Your task to perform on an android device: Search for flights from Buenos aires to Tokyo Image 0: 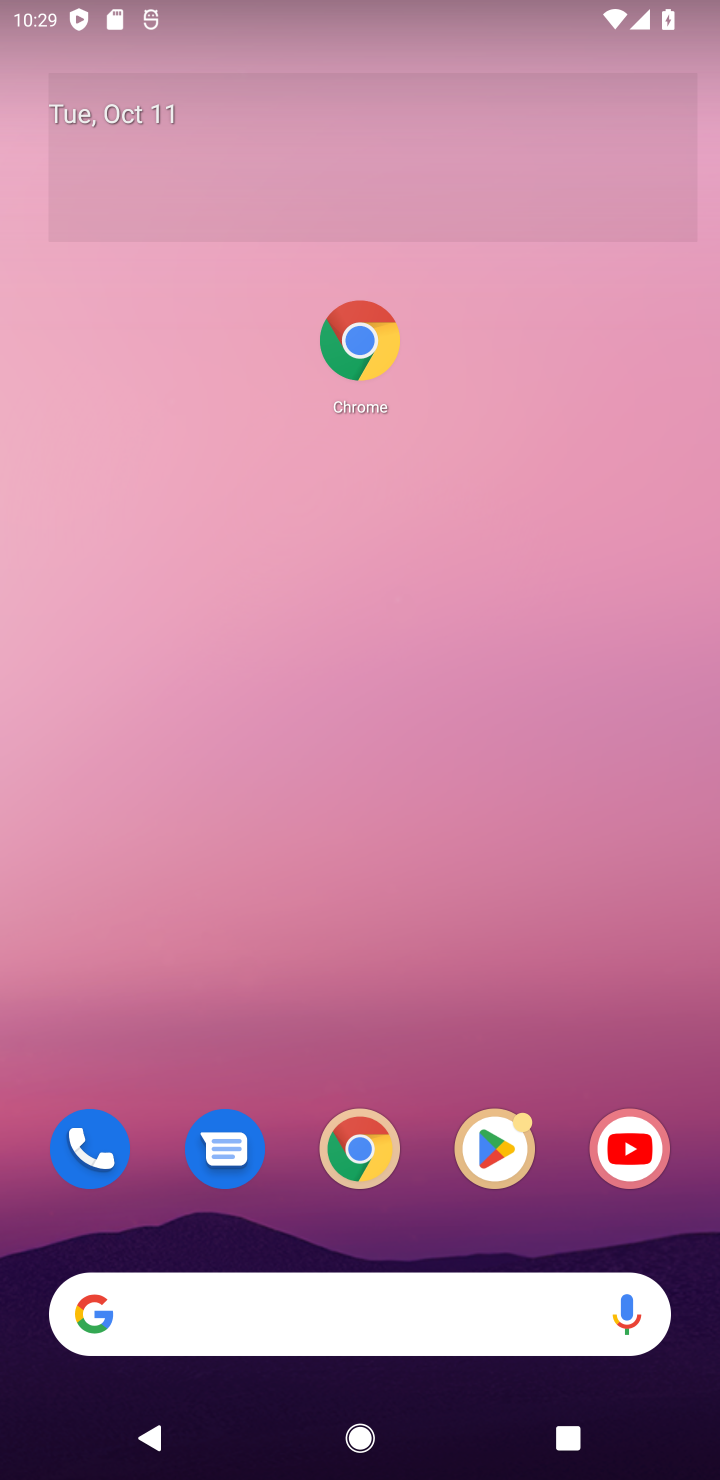
Step 0: drag from (413, 972) to (514, 267)
Your task to perform on an android device: Search for flights from Buenos aires to Tokyo Image 1: 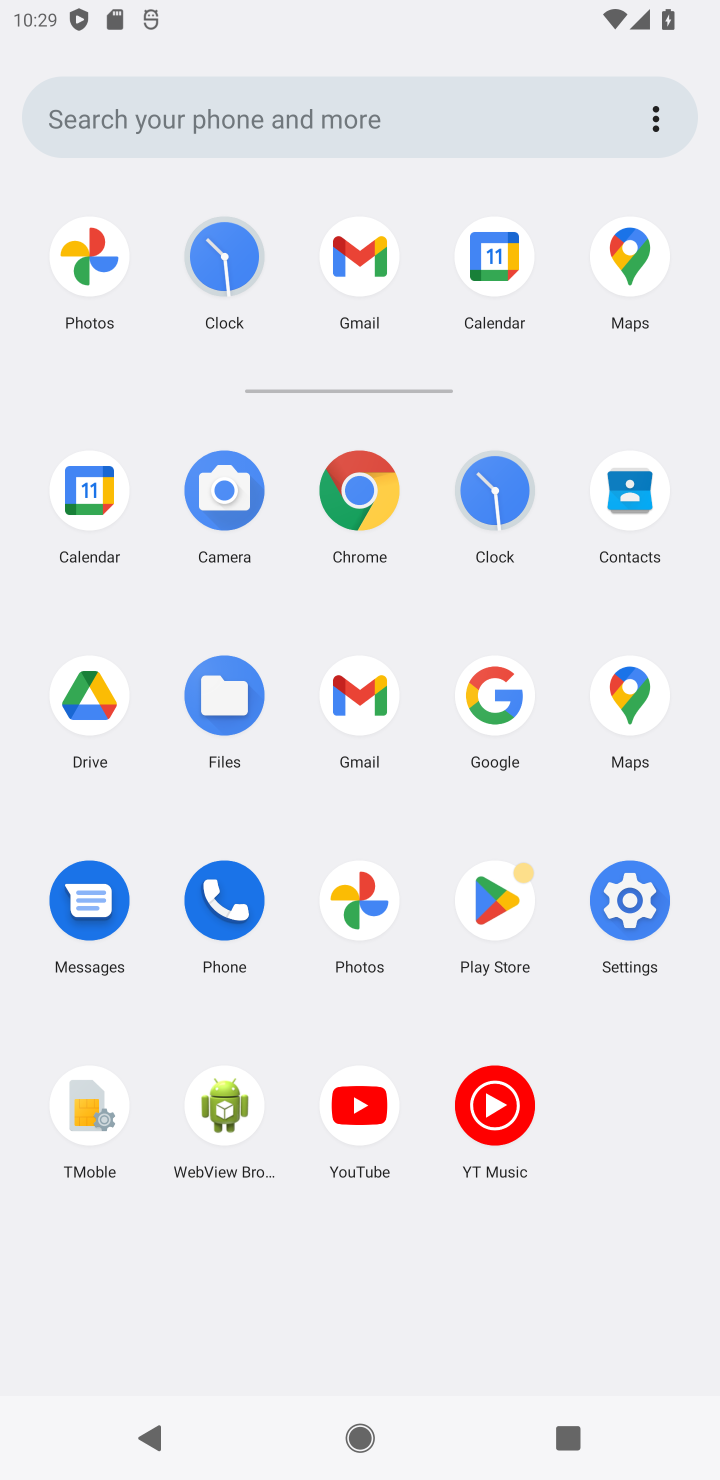
Step 1: click (379, 495)
Your task to perform on an android device: Search for flights from Buenos aires to Tokyo Image 2: 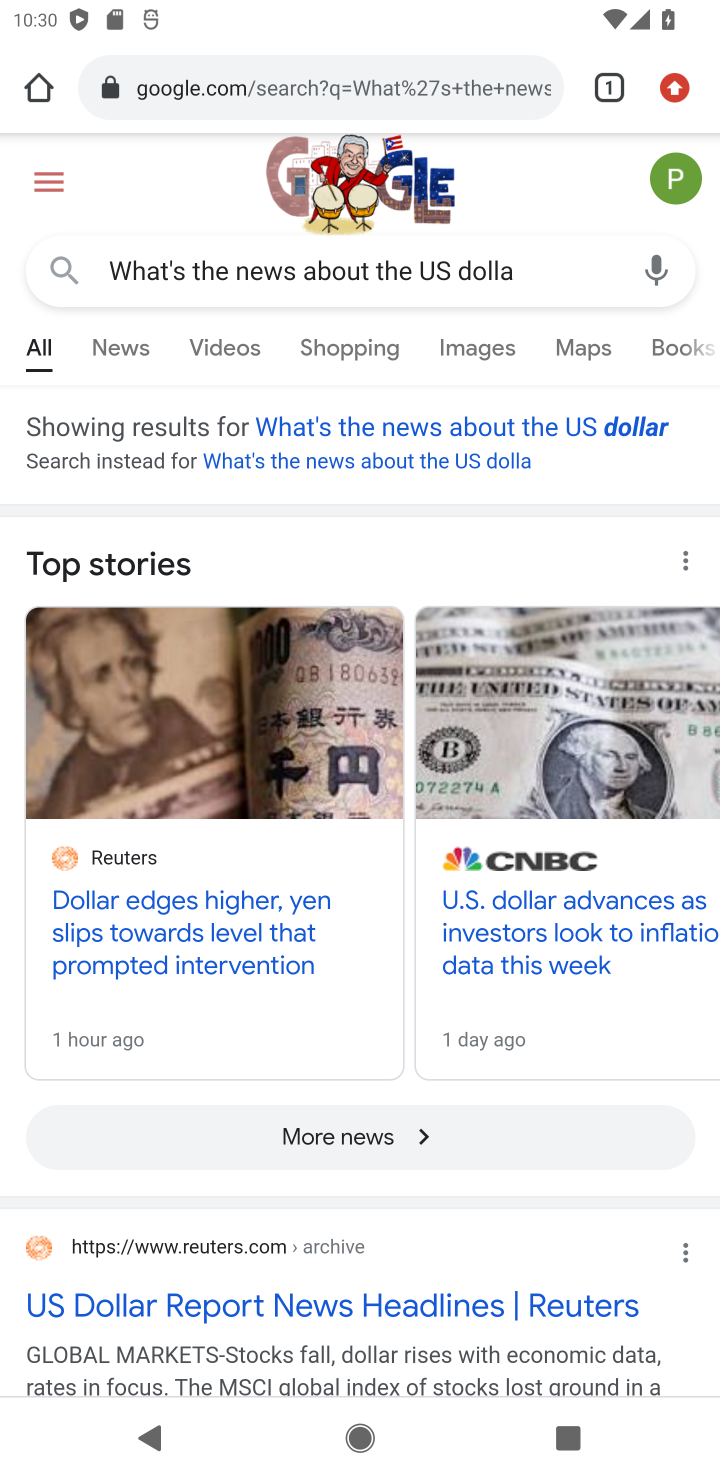
Step 2: click (453, 80)
Your task to perform on an android device: Search for flights from Buenos aires to Tokyo Image 3: 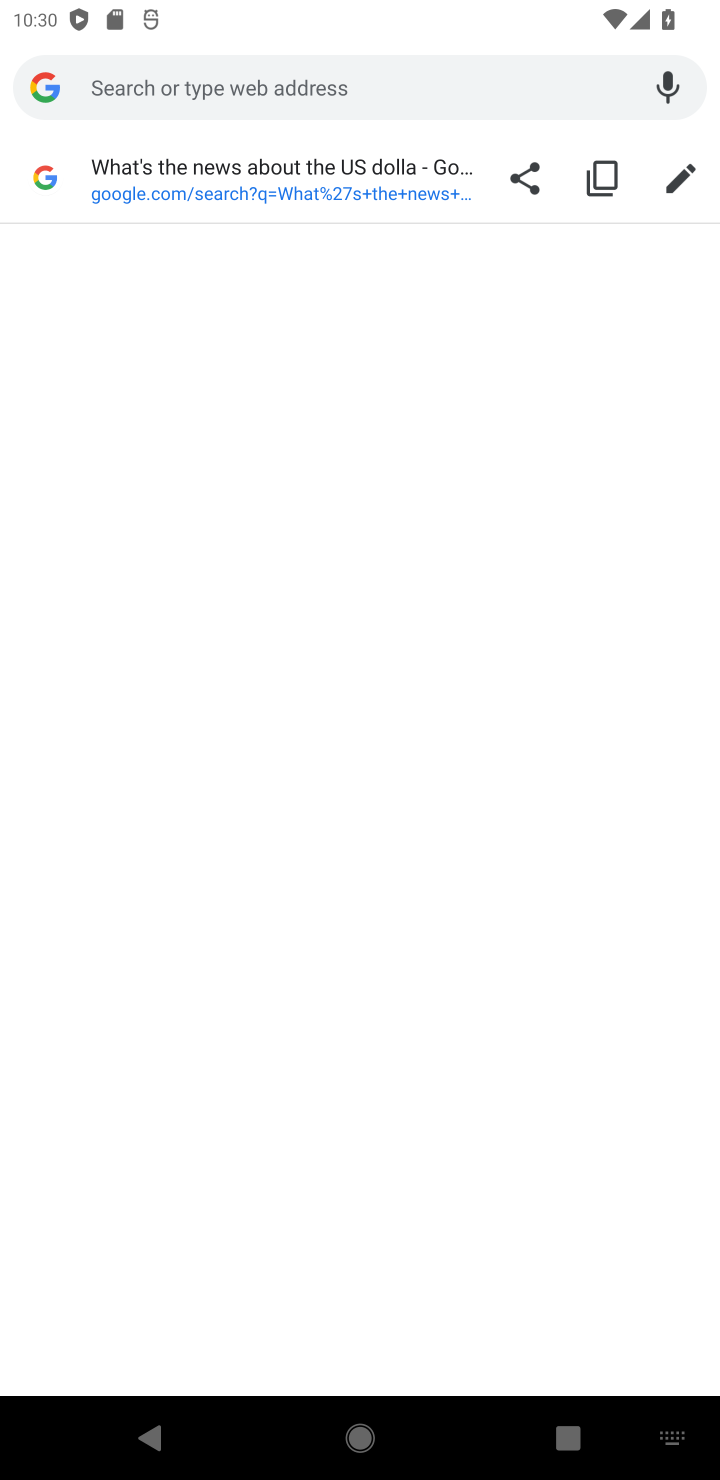
Step 3: press enter
Your task to perform on an android device: Search for flights from Buenos aires to Tokyo Image 4: 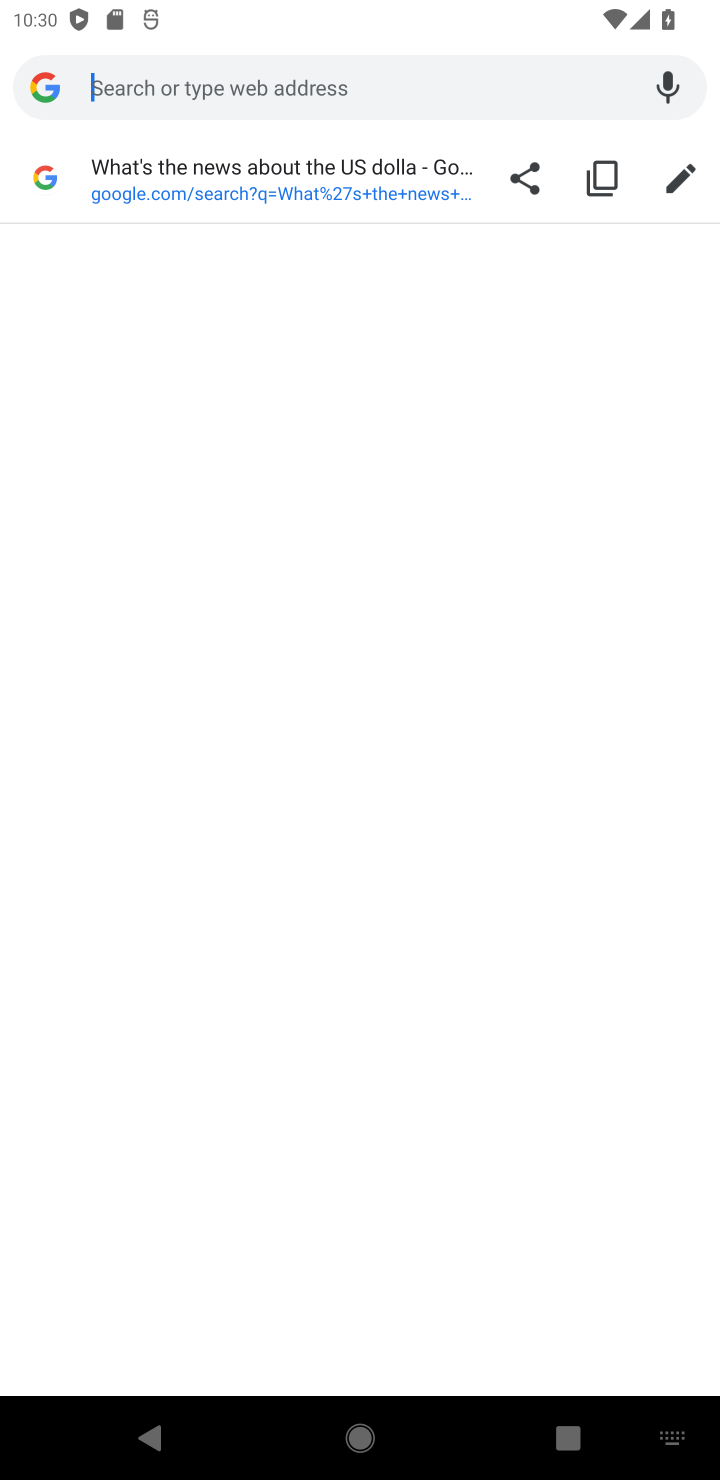
Step 4: type " flights from Buenos aires to Tokyo"
Your task to perform on an android device: Search for flights from Buenos aires to Tokyo Image 5: 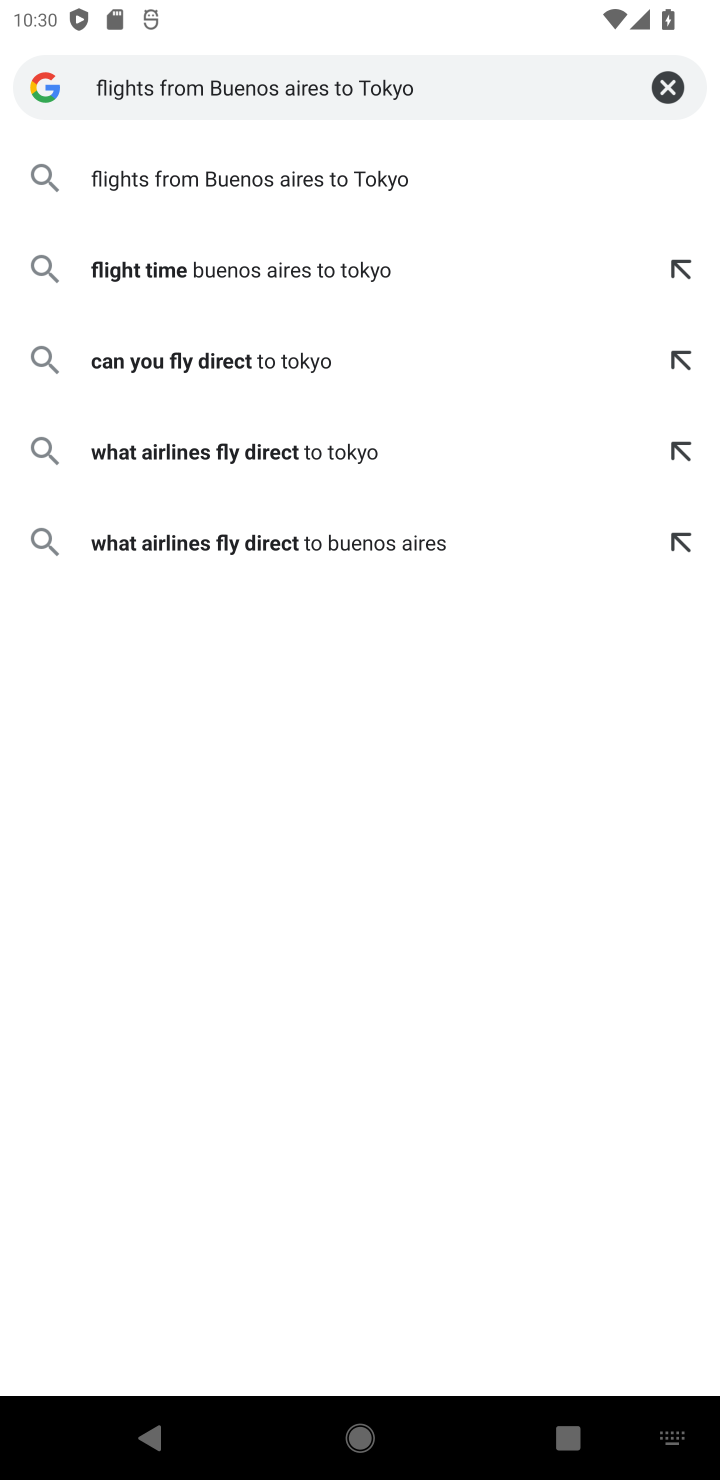
Step 5: press enter
Your task to perform on an android device: Search for flights from Buenos aires to Tokyo Image 6: 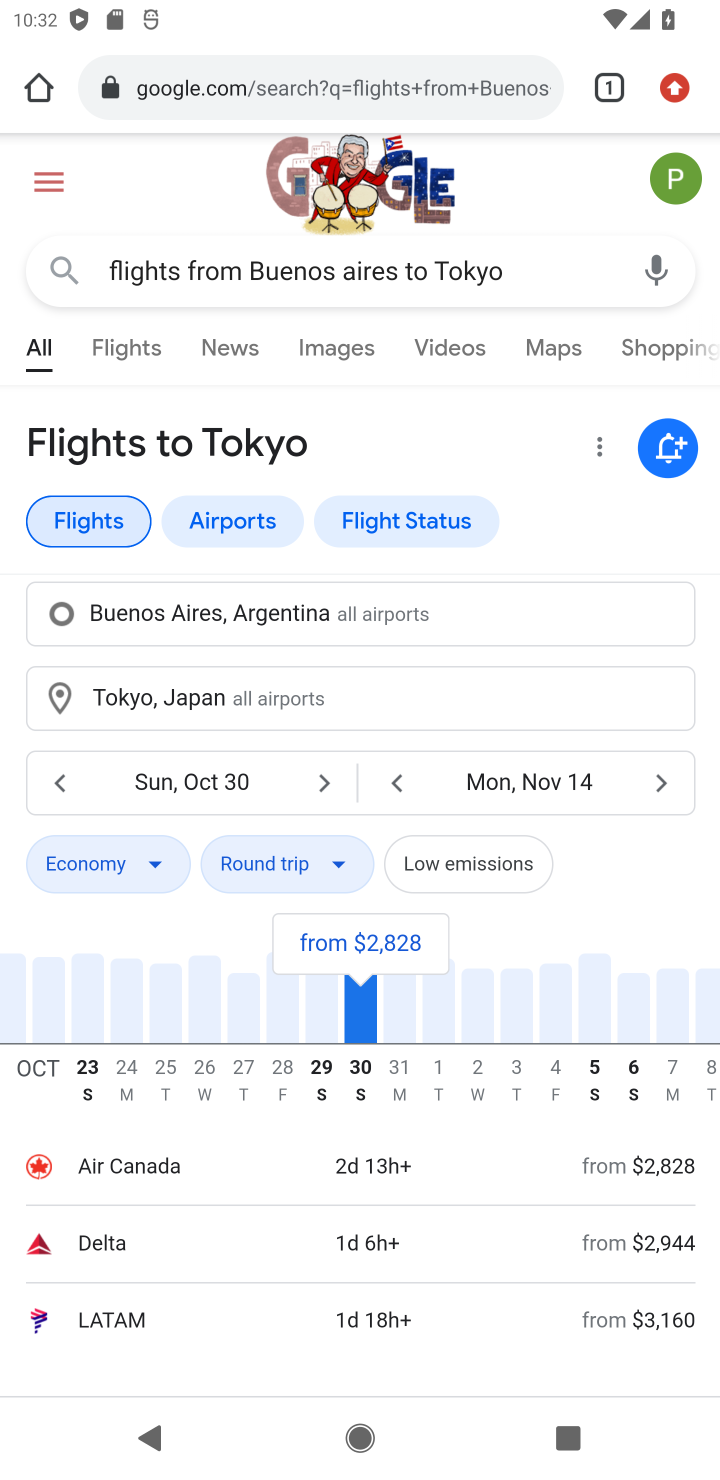
Step 6: task complete